Your task to perform on an android device: set an alarm Image 0: 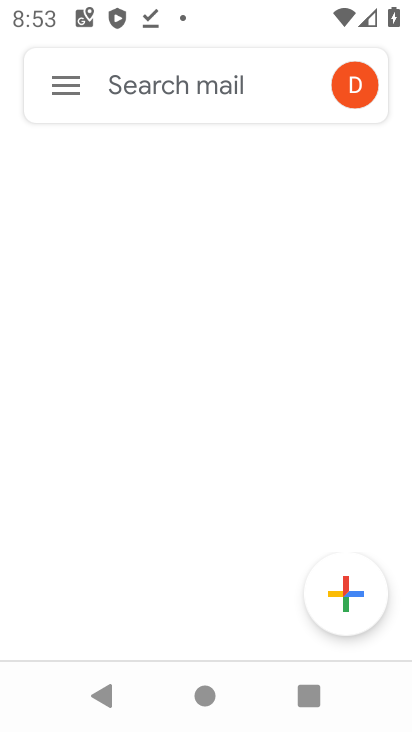
Step 0: press back button
Your task to perform on an android device: set an alarm Image 1: 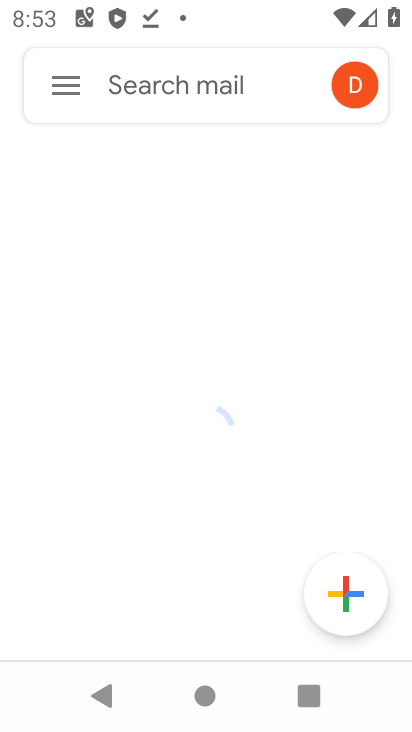
Step 1: press back button
Your task to perform on an android device: set an alarm Image 2: 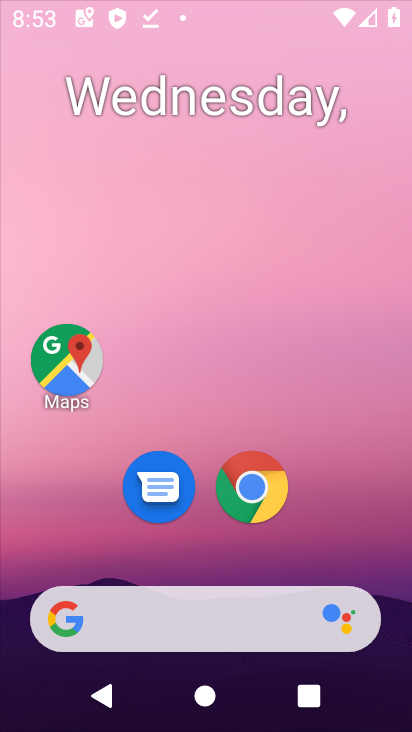
Step 2: press back button
Your task to perform on an android device: set an alarm Image 3: 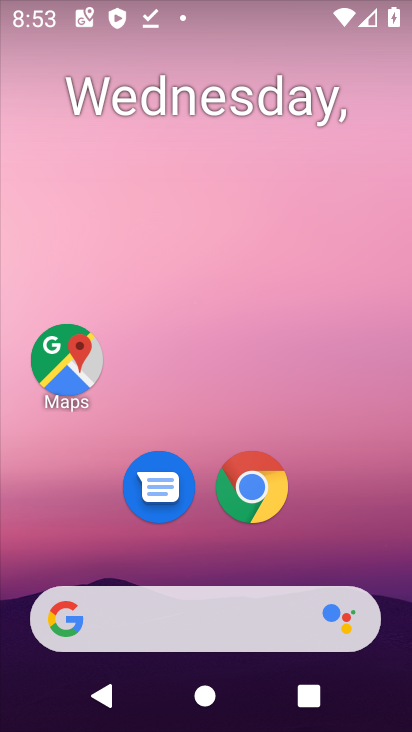
Step 3: drag from (242, 639) to (223, 169)
Your task to perform on an android device: set an alarm Image 4: 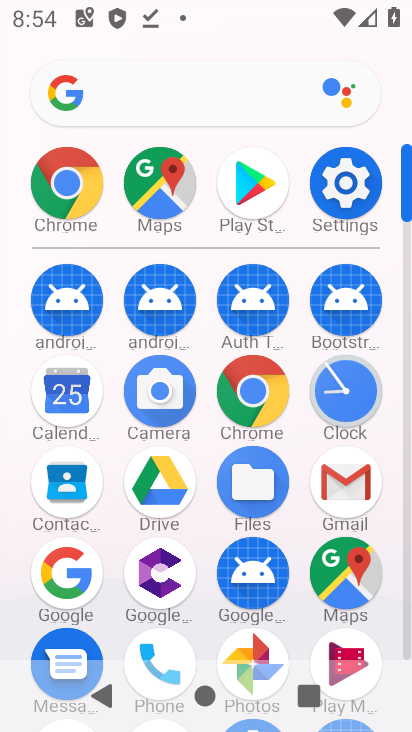
Step 4: click (347, 381)
Your task to perform on an android device: set an alarm Image 5: 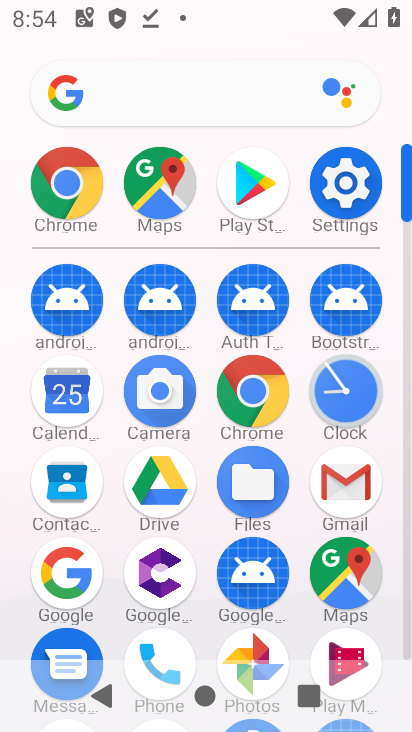
Step 5: click (350, 385)
Your task to perform on an android device: set an alarm Image 6: 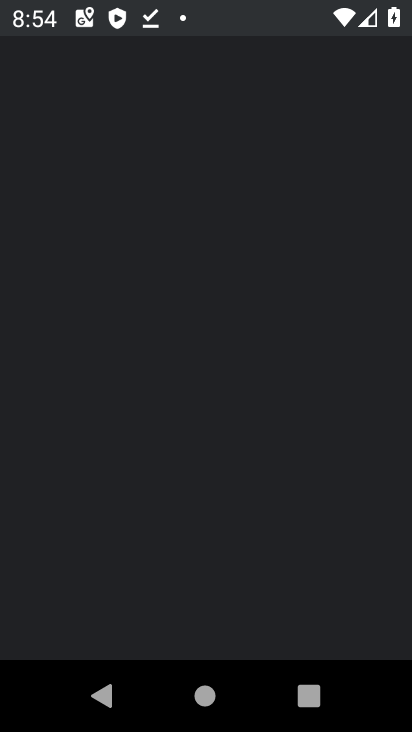
Step 6: click (355, 383)
Your task to perform on an android device: set an alarm Image 7: 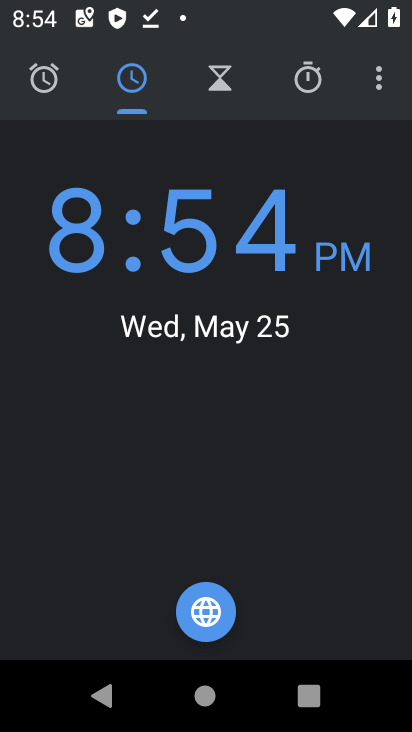
Step 7: click (33, 86)
Your task to perform on an android device: set an alarm Image 8: 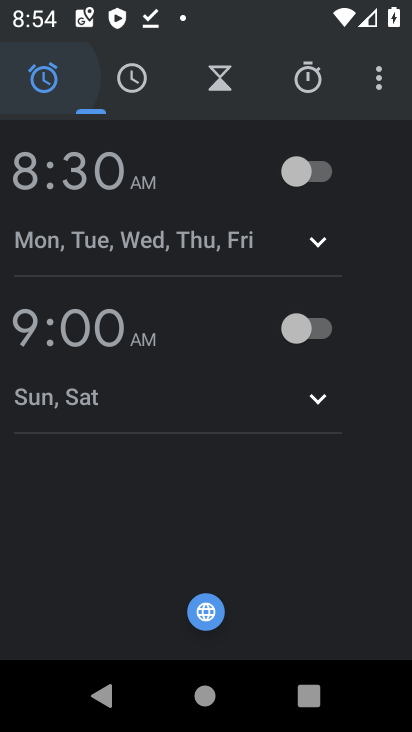
Step 8: click (35, 86)
Your task to perform on an android device: set an alarm Image 9: 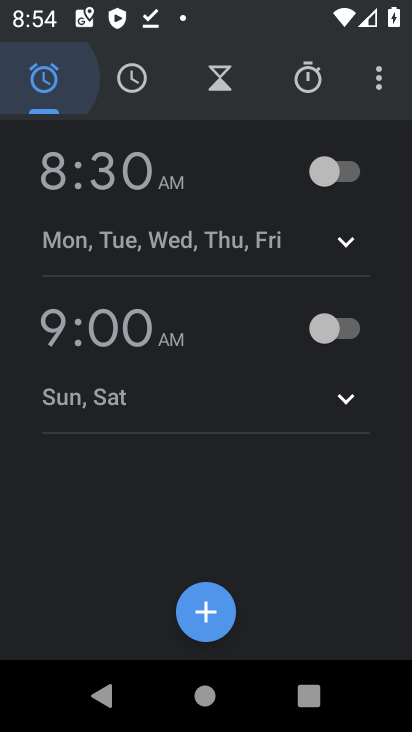
Step 9: click (35, 86)
Your task to perform on an android device: set an alarm Image 10: 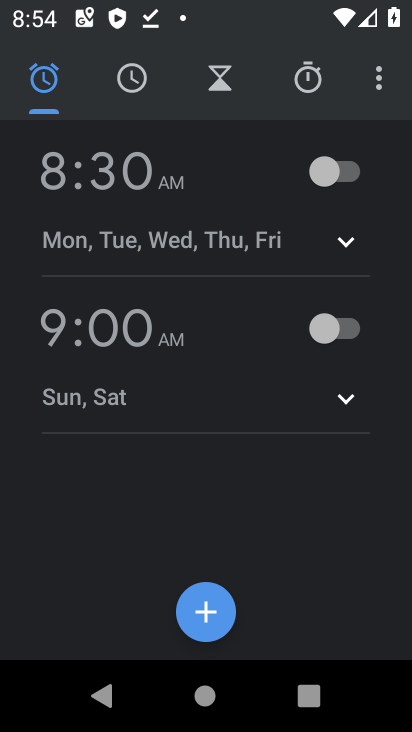
Step 10: click (330, 184)
Your task to perform on an android device: set an alarm Image 11: 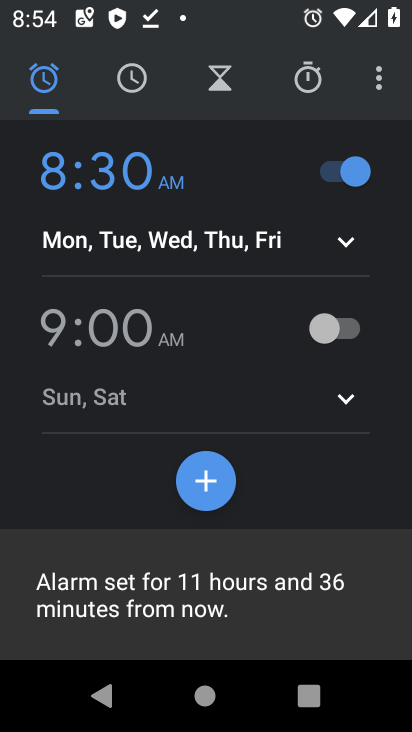
Step 11: task complete